Your task to perform on an android device: check android version Image 0: 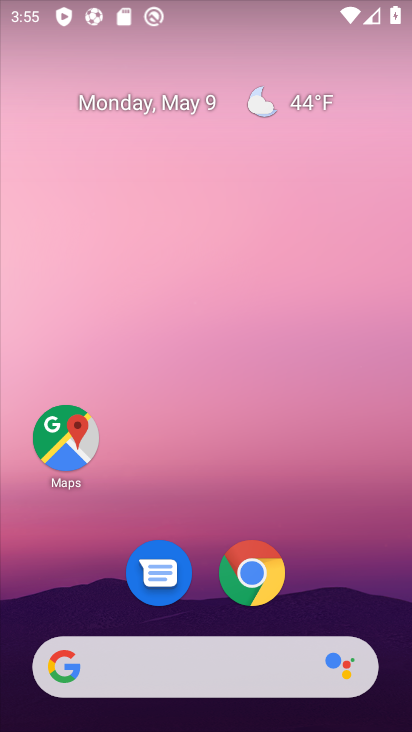
Step 0: drag from (329, 624) to (294, 30)
Your task to perform on an android device: check android version Image 1: 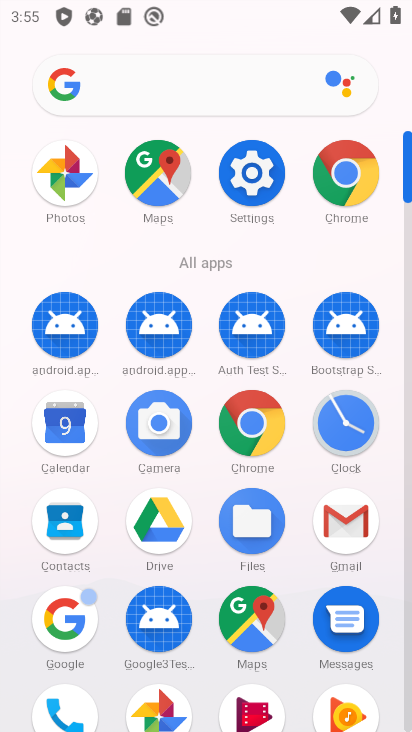
Step 1: click (275, 183)
Your task to perform on an android device: check android version Image 2: 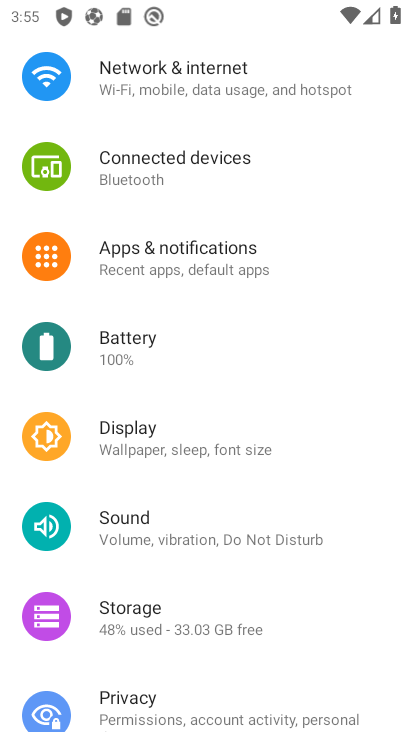
Step 2: drag from (220, 619) to (228, 157)
Your task to perform on an android device: check android version Image 3: 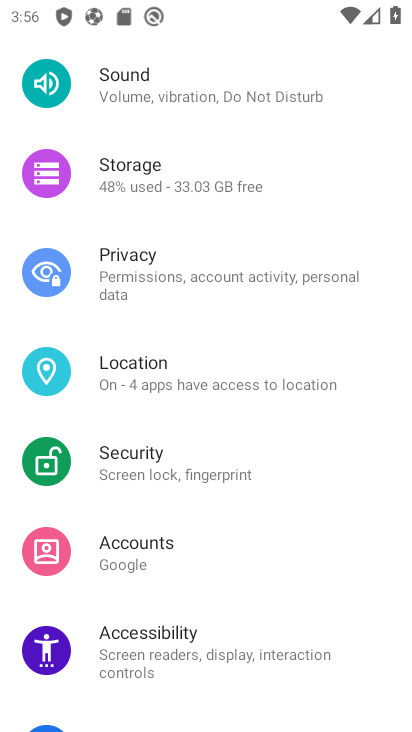
Step 3: drag from (244, 656) to (203, 116)
Your task to perform on an android device: check android version Image 4: 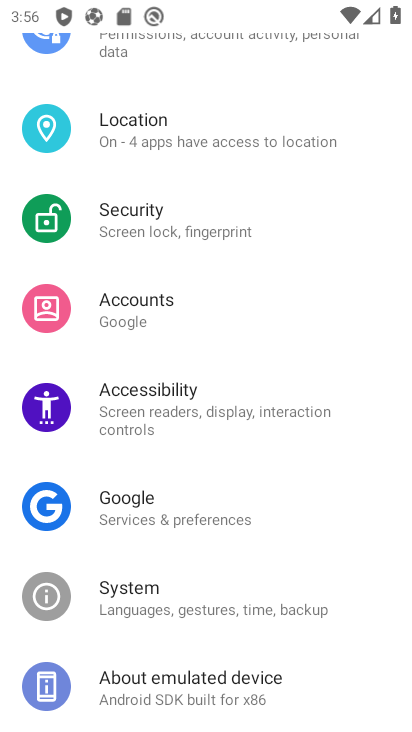
Step 4: drag from (219, 558) to (198, 200)
Your task to perform on an android device: check android version Image 5: 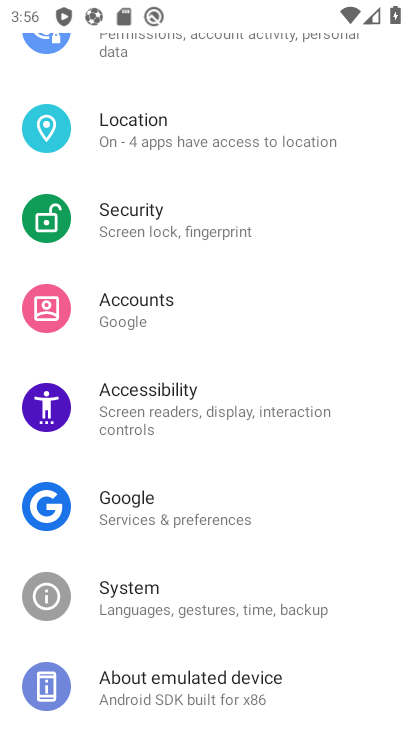
Step 5: click (172, 685)
Your task to perform on an android device: check android version Image 6: 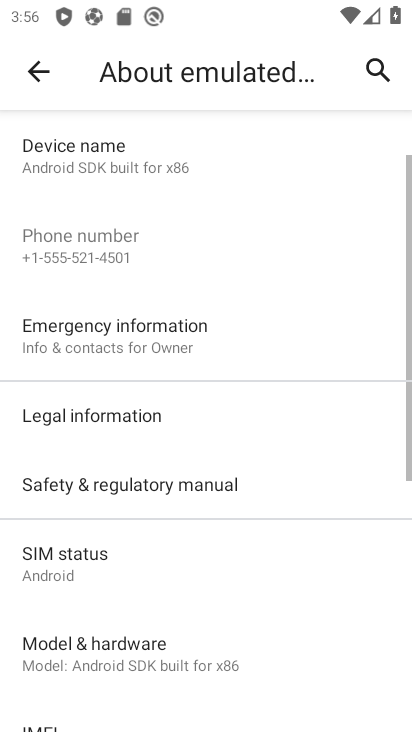
Step 6: drag from (129, 557) to (94, 272)
Your task to perform on an android device: check android version Image 7: 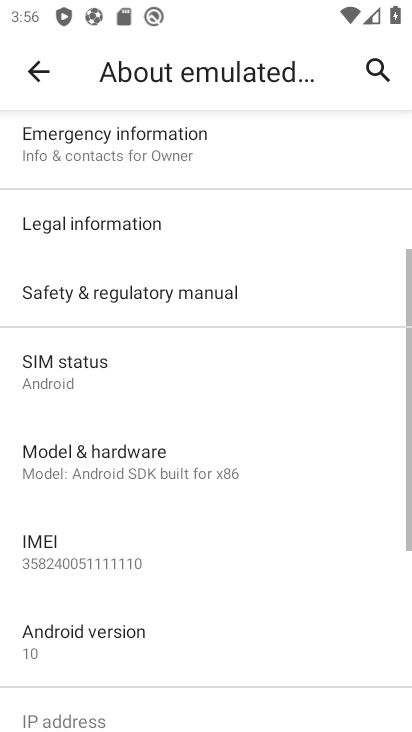
Step 7: click (88, 654)
Your task to perform on an android device: check android version Image 8: 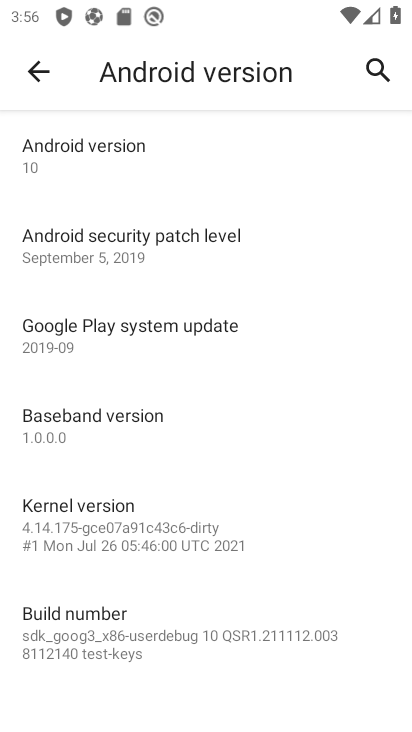
Step 8: task complete